Your task to perform on an android device: Open network settings Image 0: 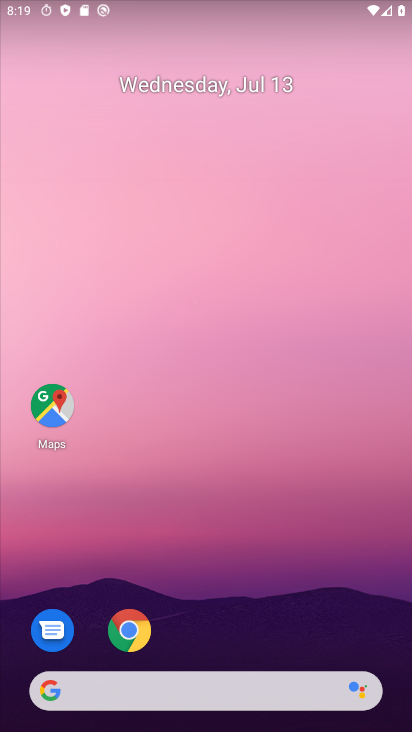
Step 0: drag from (171, 628) to (229, 261)
Your task to perform on an android device: Open network settings Image 1: 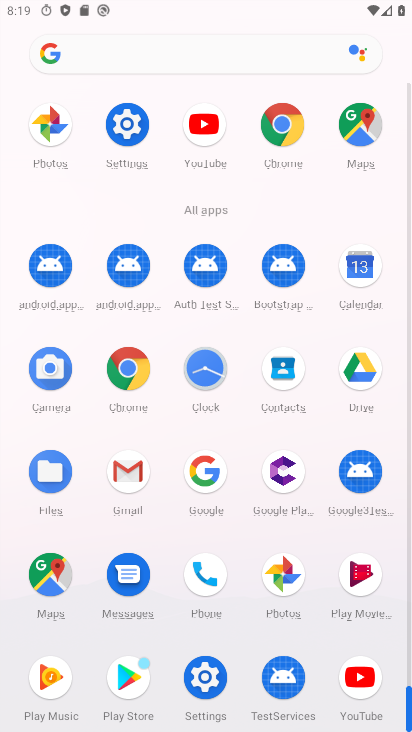
Step 1: click (197, 670)
Your task to perform on an android device: Open network settings Image 2: 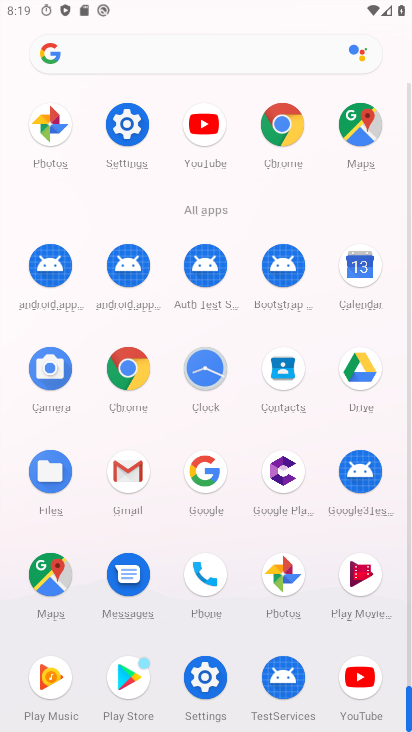
Step 2: click (192, 686)
Your task to perform on an android device: Open network settings Image 3: 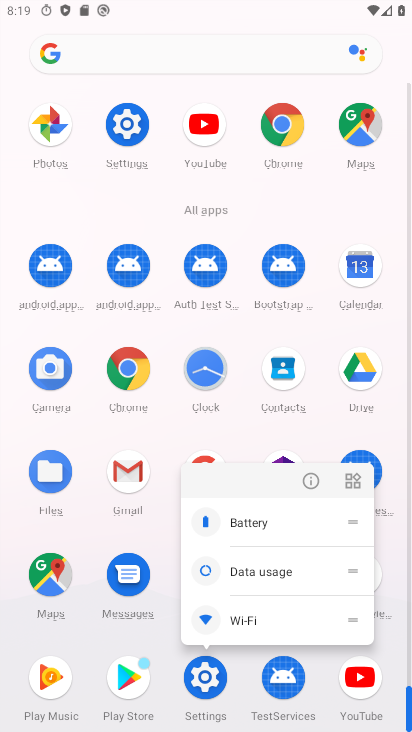
Step 3: click (310, 484)
Your task to perform on an android device: Open network settings Image 4: 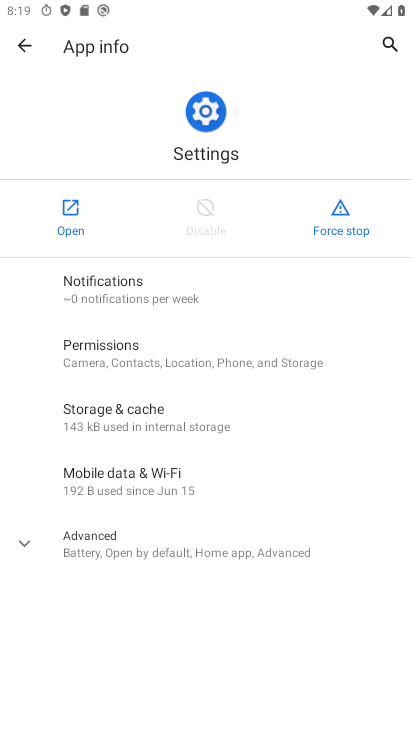
Step 4: click (87, 213)
Your task to perform on an android device: Open network settings Image 5: 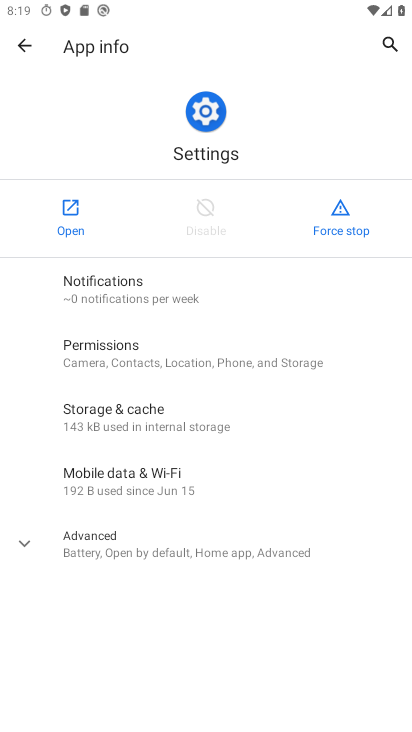
Step 5: click (87, 213)
Your task to perform on an android device: Open network settings Image 6: 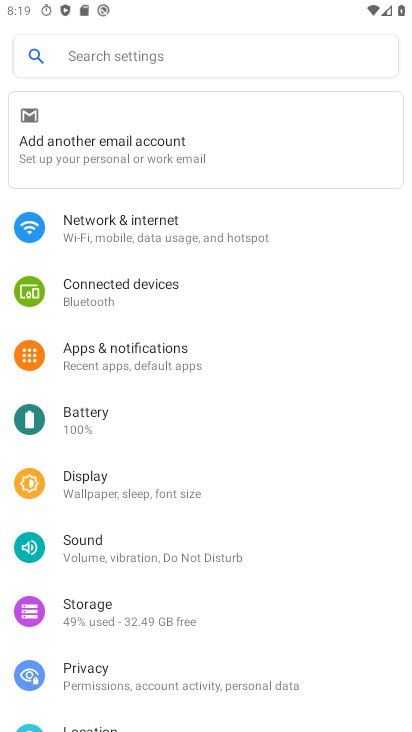
Step 6: click (139, 235)
Your task to perform on an android device: Open network settings Image 7: 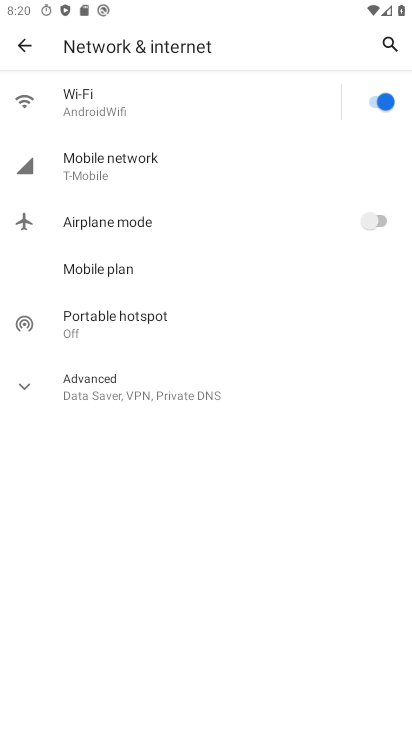
Step 7: drag from (147, 471) to (171, 212)
Your task to perform on an android device: Open network settings Image 8: 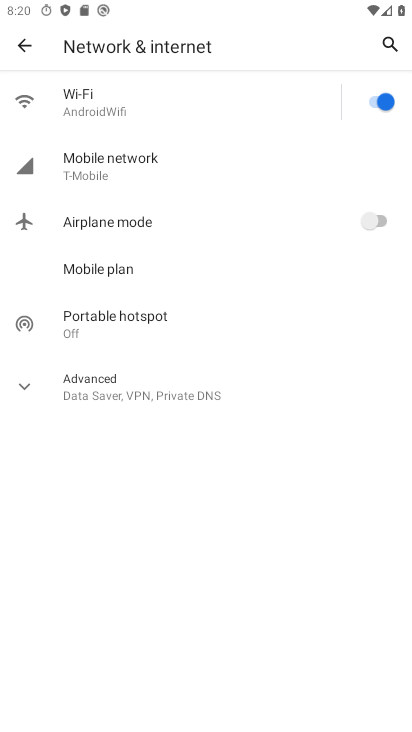
Step 8: click (170, 155)
Your task to perform on an android device: Open network settings Image 9: 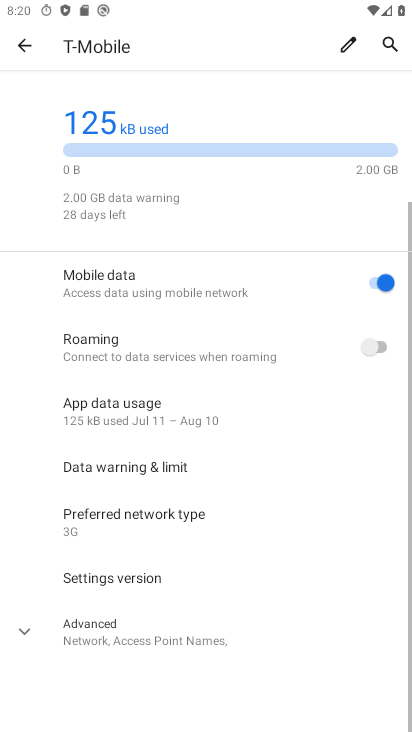
Step 9: task complete